Your task to perform on an android device: Open the calendar and show me this week's events? Image 0: 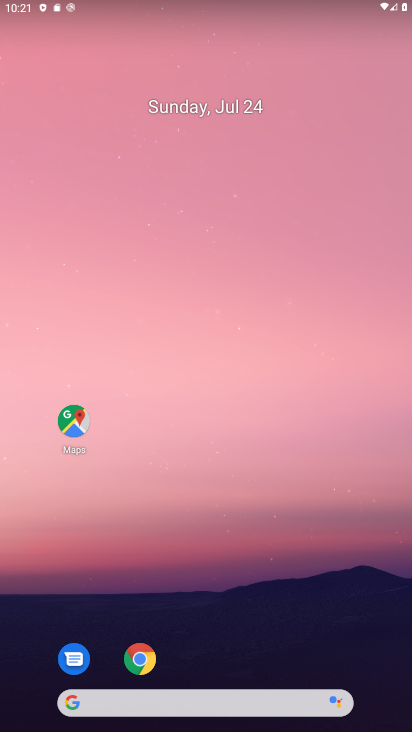
Step 0: drag from (289, 495) to (243, 208)
Your task to perform on an android device: Open the calendar and show me this week's events? Image 1: 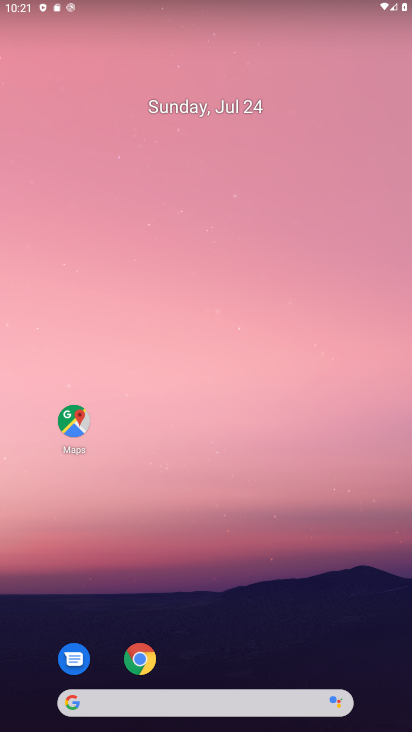
Step 1: drag from (354, 663) to (244, 11)
Your task to perform on an android device: Open the calendar and show me this week's events? Image 2: 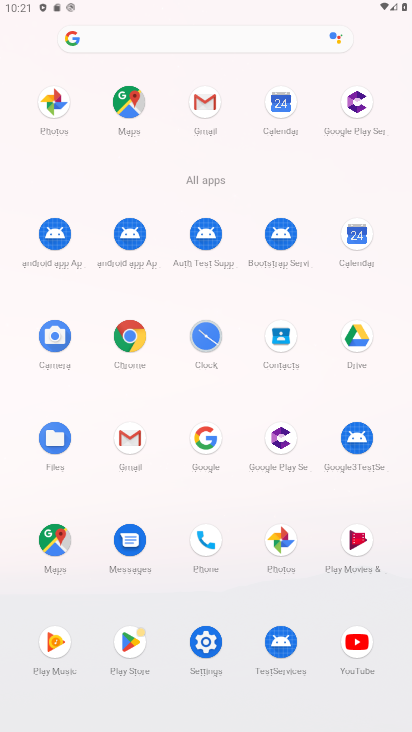
Step 2: click (354, 238)
Your task to perform on an android device: Open the calendar and show me this week's events? Image 3: 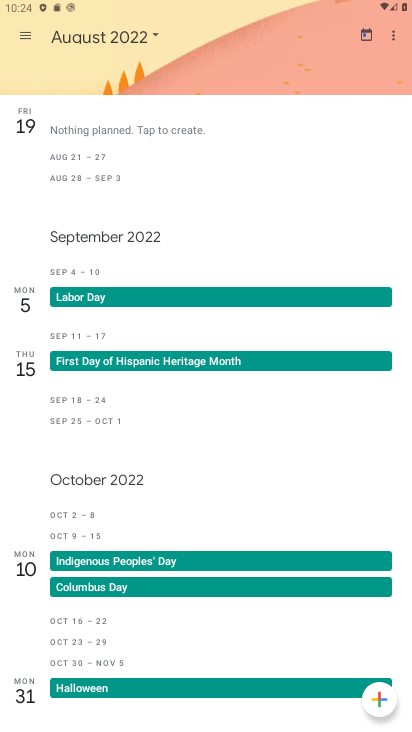
Step 3: click (397, 41)
Your task to perform on an android device: Open the calendar and show me this week's events? Image 4: 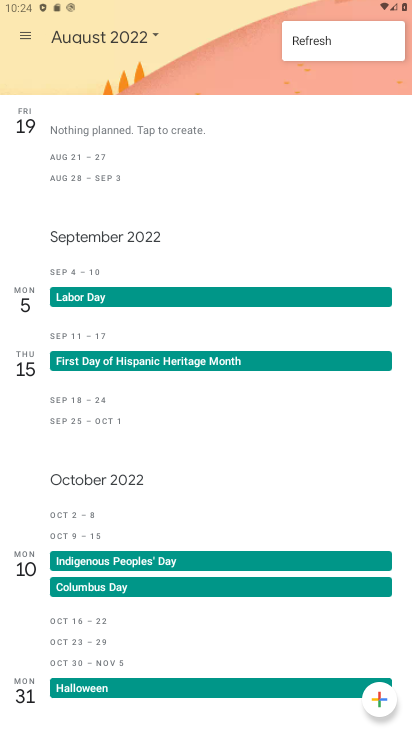
Step 4: click (262, 168)
Your task to perform on an android device: Open the calendar and show me this week's events? Image 5: 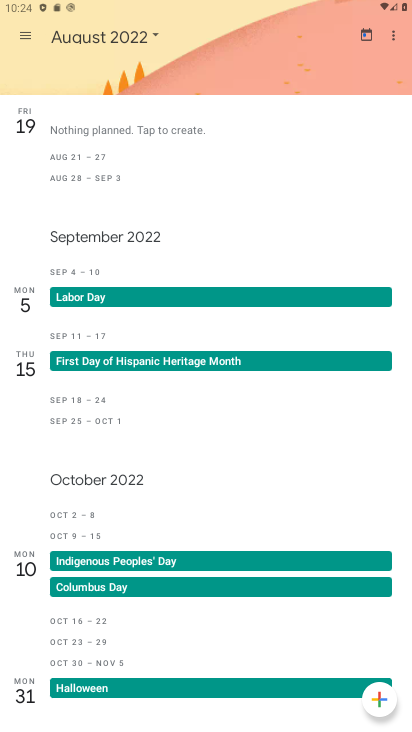
Step 5: task complete